Your task to perform on an android device: Open the stopwatch Image 0: 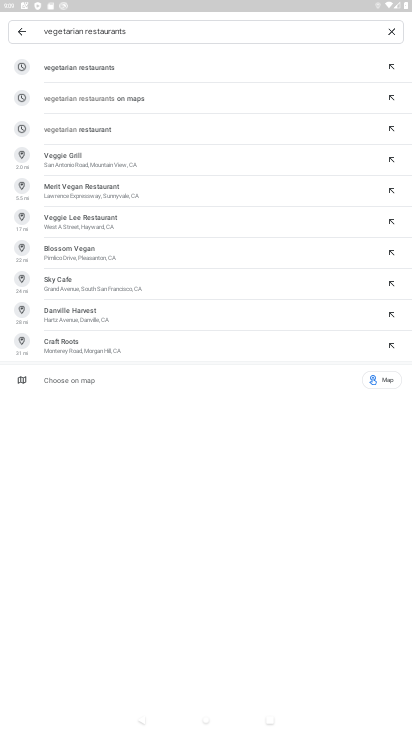
Step 0: press home button
Your task to perform on an android device: Open the stopwatch Image 1: 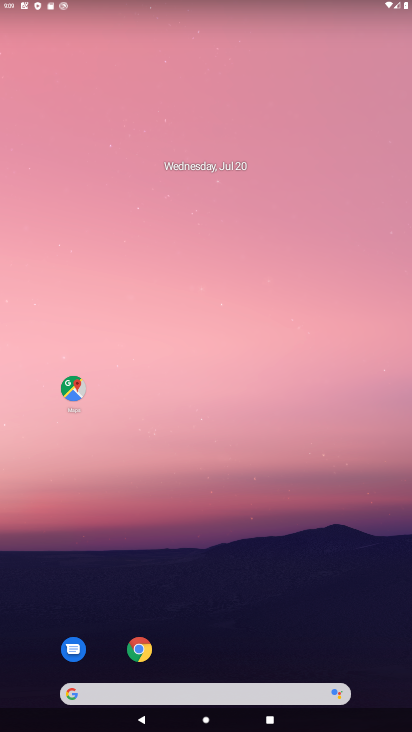
Step 1: drag from (254, 635) to (273, 83)
Your task to perform on an android device: Open the stopwatch Image 2: 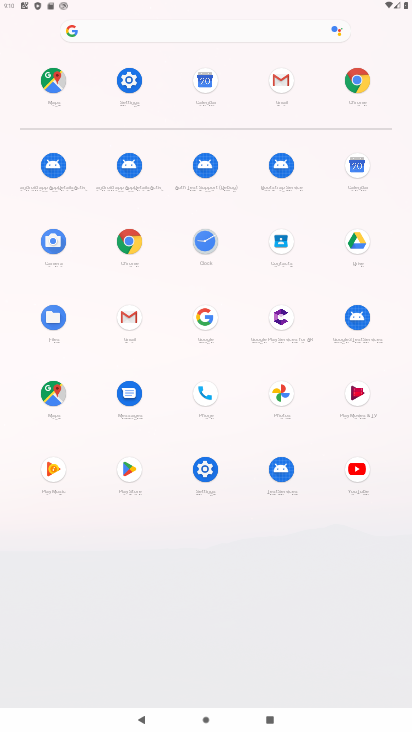
Step 2: click (216, 232)
Your task to perform on an android device: Open the stopwatch Image 3: 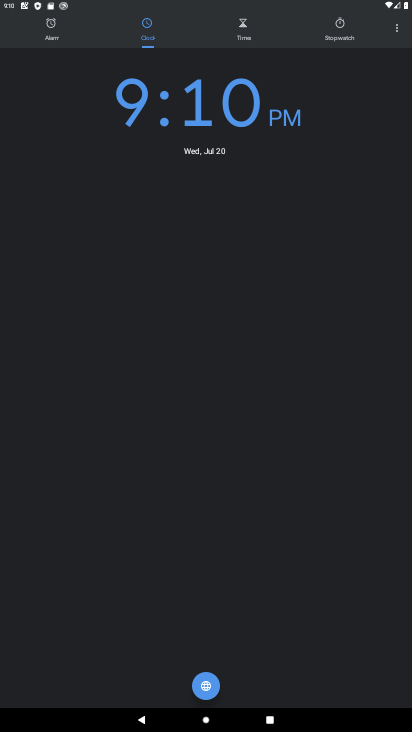
Step 3: task complete